Your task to perform on an android device: Go to Wikipedia Image 0: 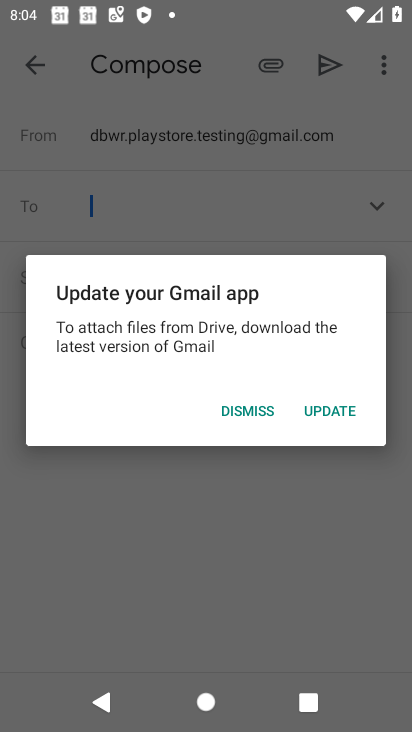
Step 0: press home button
Your task to perform on an android device: Go to Wikipedia Image 1: 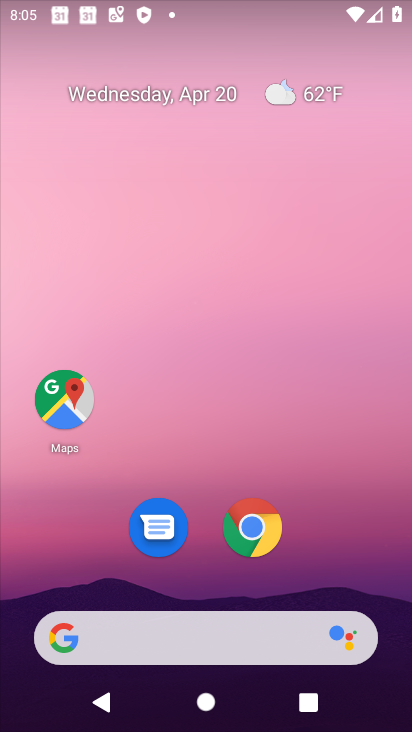
Step 1: click (248, 533)
Your task to perform on an android device: Go to Wikipedia Image 2: 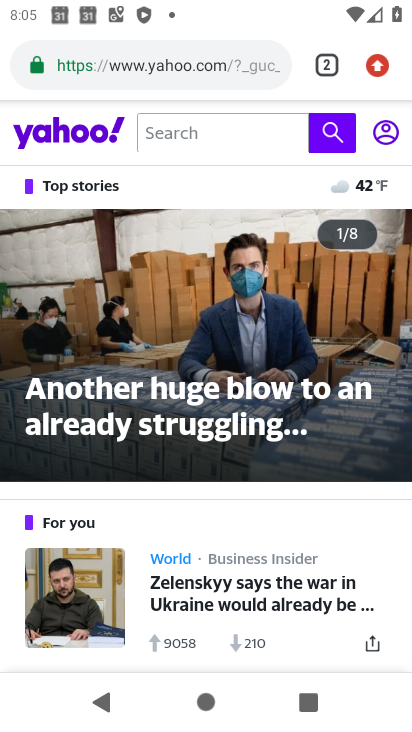
Step 2: click (331, 67)
Your task to perform on an android device: Go to Wikipedia Image 3: 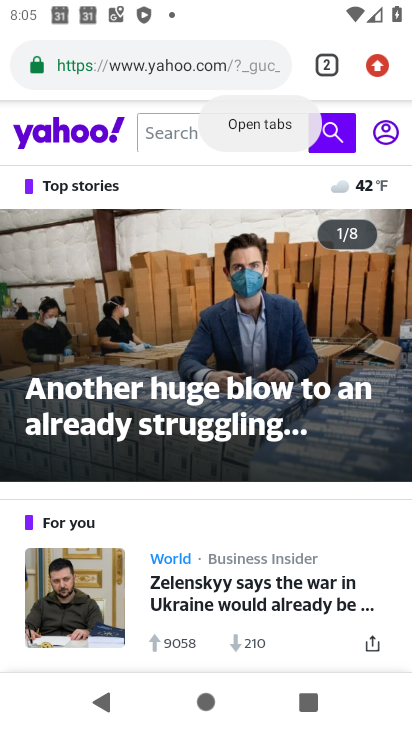
Step 3: click (331, 66)
Your task to perform on an android device: Go to Wikipedia Image 4: 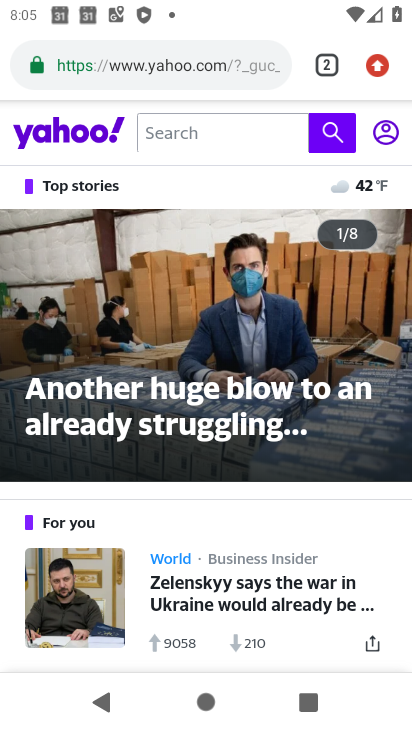
Step 4: click (325, 63)
Your task to perform on an android device: Go to Wikipedia Image 5: 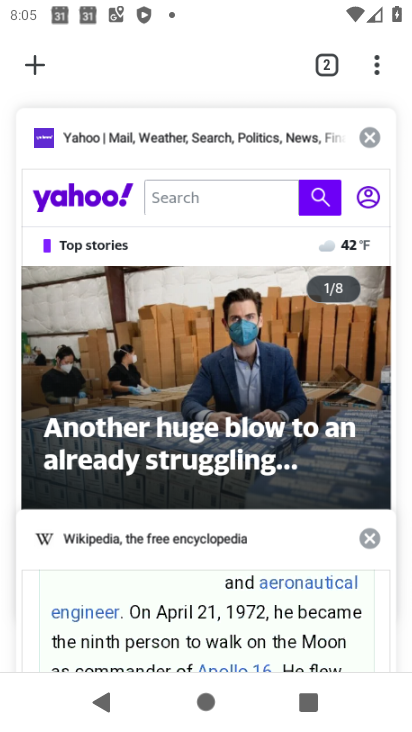
Step 5: click (363, 133)
Your task to perform on an android device: Go to Wikipedia Image 6: 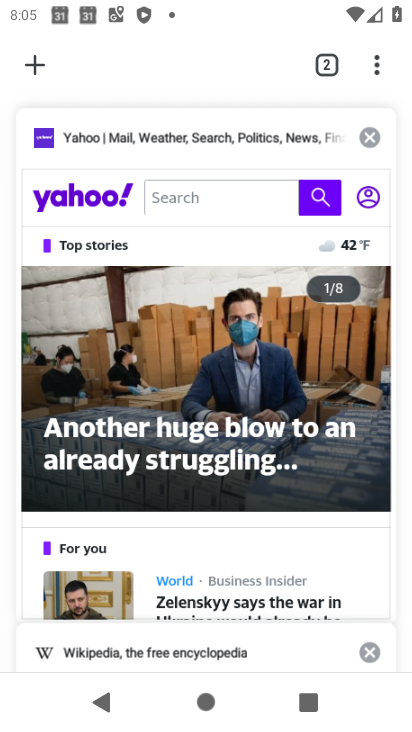
Step 6: click (368, 141)
Your task to perform on an android device: Go to Wikipedia Image 7: 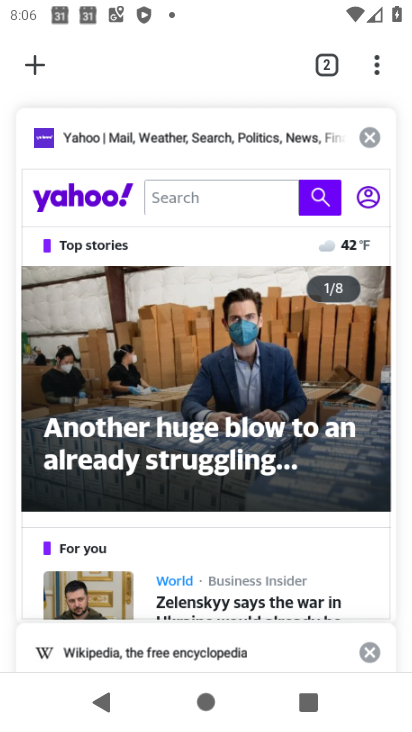
Step 7: click (37, 63)
Your task to perform on an android device: Go to Wikipedia Image 8: 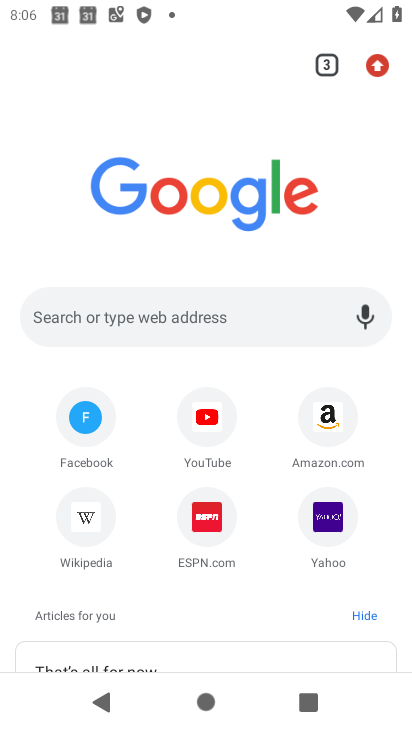
Step 8: click (97, 518)
Your task to perform on an android device: Go to Wikipedia Image 9: 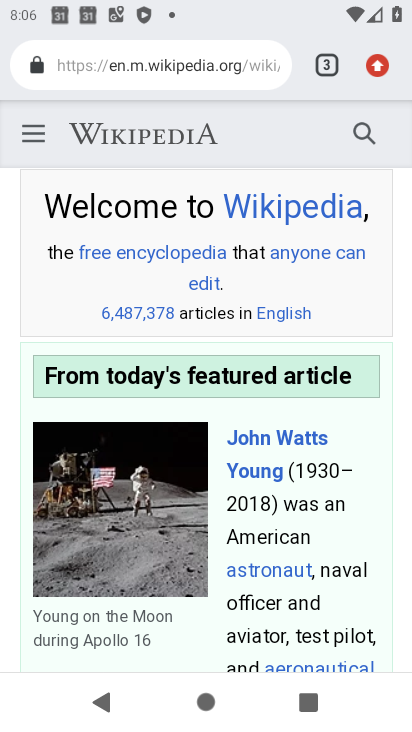
Step 9: task complete